Your task to perform on an android device: Is it going to rain today? Image 0: 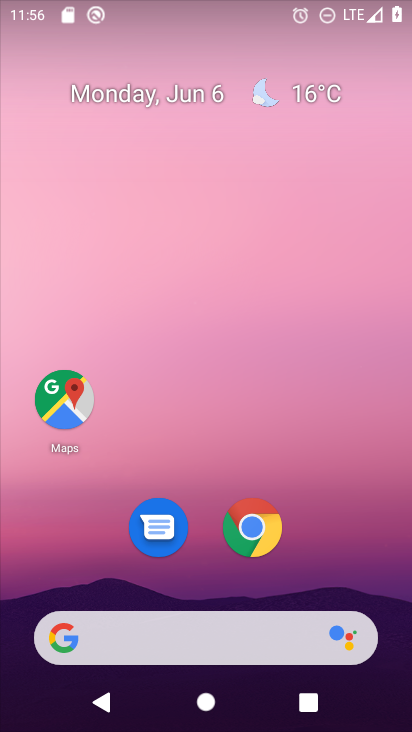
Step 0: click (316, 88)
Your task to perform on an android device: Is it going to rain today? Image 1: 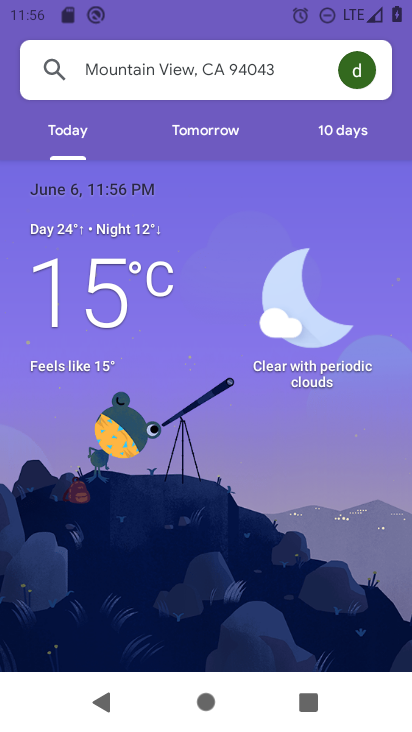
Step 1: task complete